Your task to perform on an android device: Turn on the flashlight Image 0: 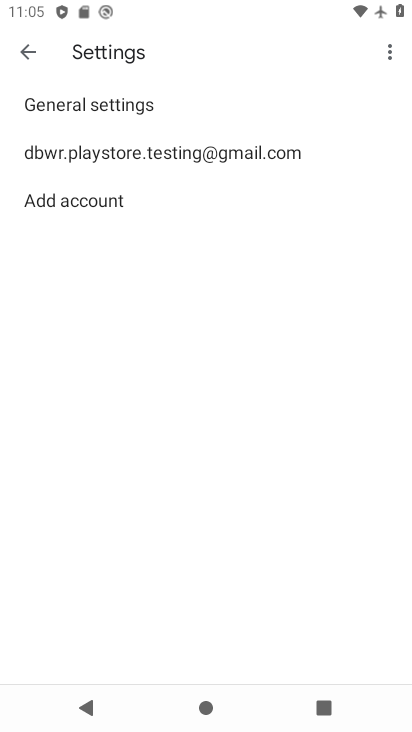
Step 0: press home button
Your task to perform on an android device: Turn on the flashlight Image 1: 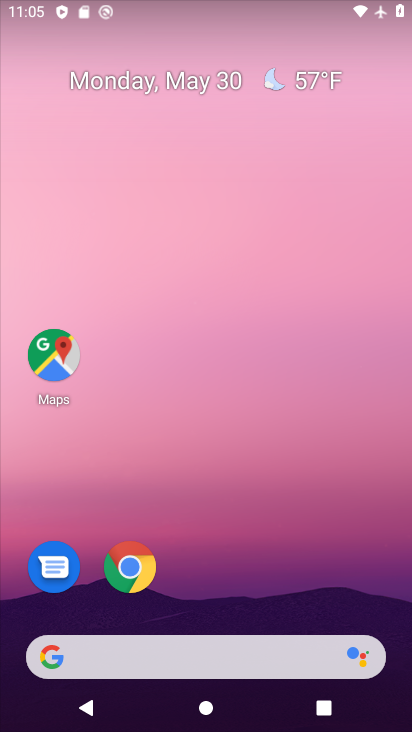
Step 1: drag from (248, 578) to (253, 199)
Your task to perform on an android device: Turn on the flashlight Image 2: 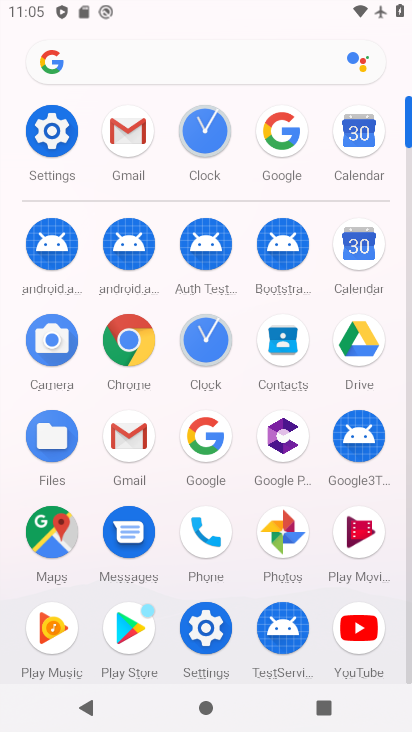
Step 2: click (51, 123)
Your task to perform on an android device: Turn on the flashlight Image 3: 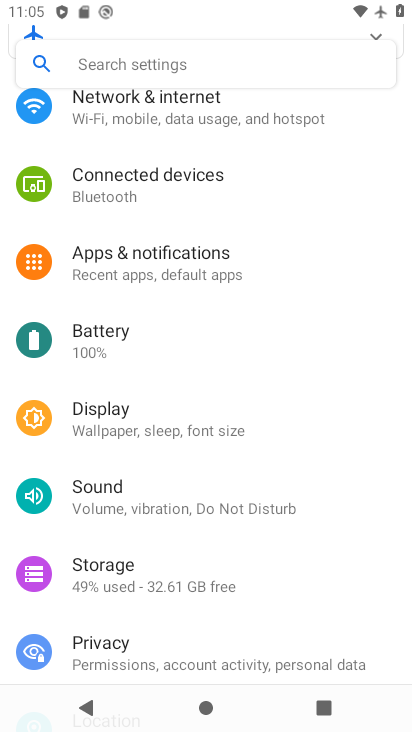
Step 3: task complete